Your task to perform on an android device: Go to wifi settings Image 0: 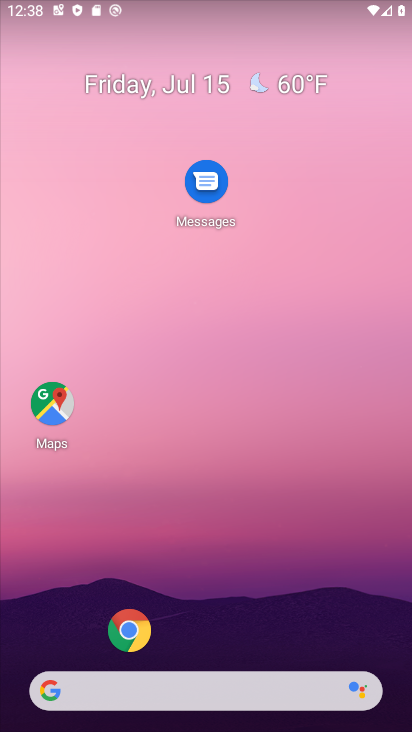
Step 0: drag from (119, 535) to (178, 210)
Your task to perform on an android device: Go to wifi settings Image 1: 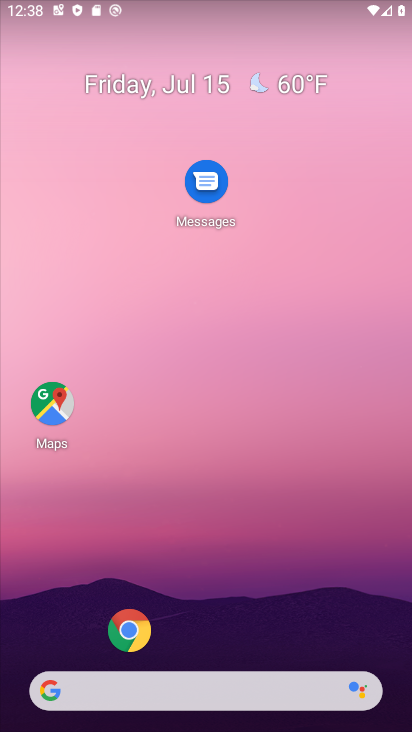
Step 1: drag from (32, 693) to (162, 193)
Your task to perform on an android device: Go to wifi settings Image 2: 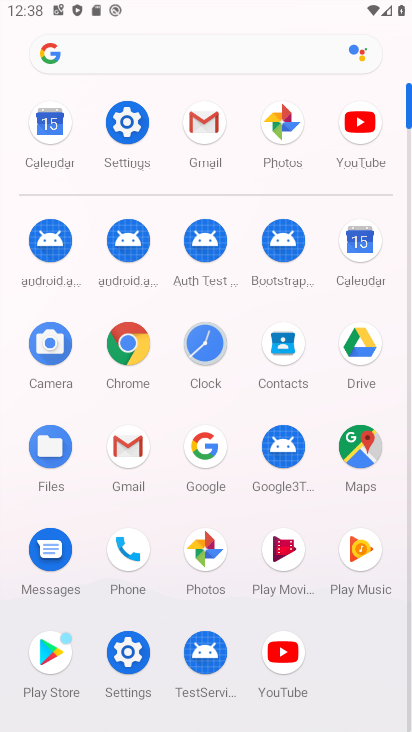
Step 2: click (118, 645)
Your task to perform on an android device: Go to wifi settings Image 3: 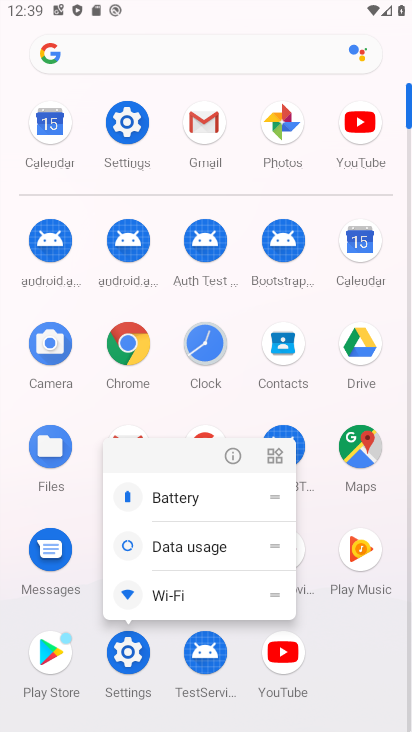
Step 3: click (129, 646)
Your task to perform on an android device: Go to wifi settings Image 4: 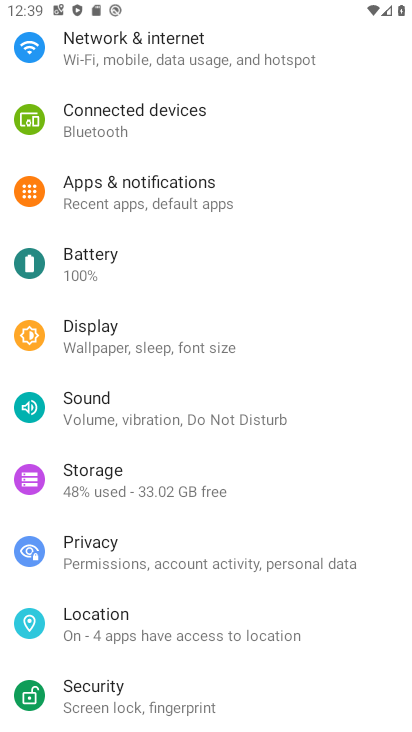
Step 4: click (191, 53)
Your task to perform on an android device: Go to wifi settings Image 5: 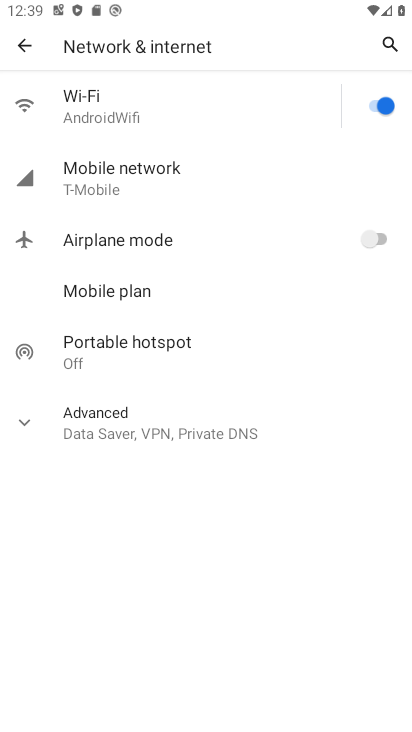
Step 5: click (142, 107)
Your task to perform on an android device: Go to wifi settings Image 6: 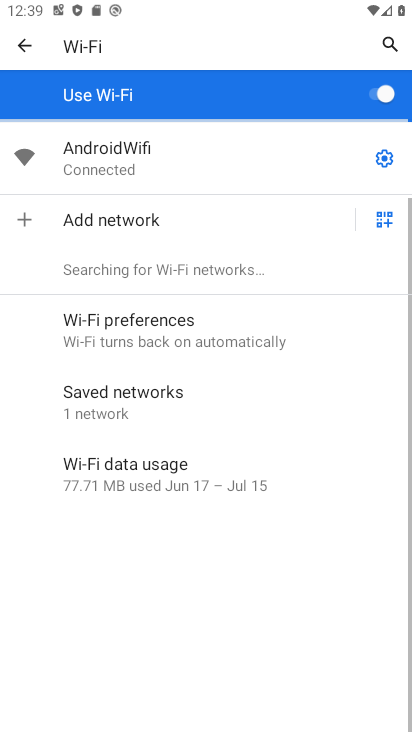
Step 6: task complete